Your task to perform on an android device: open app "Expedia: Hotels, Flights & Car" (install if not already installed) Image 0: 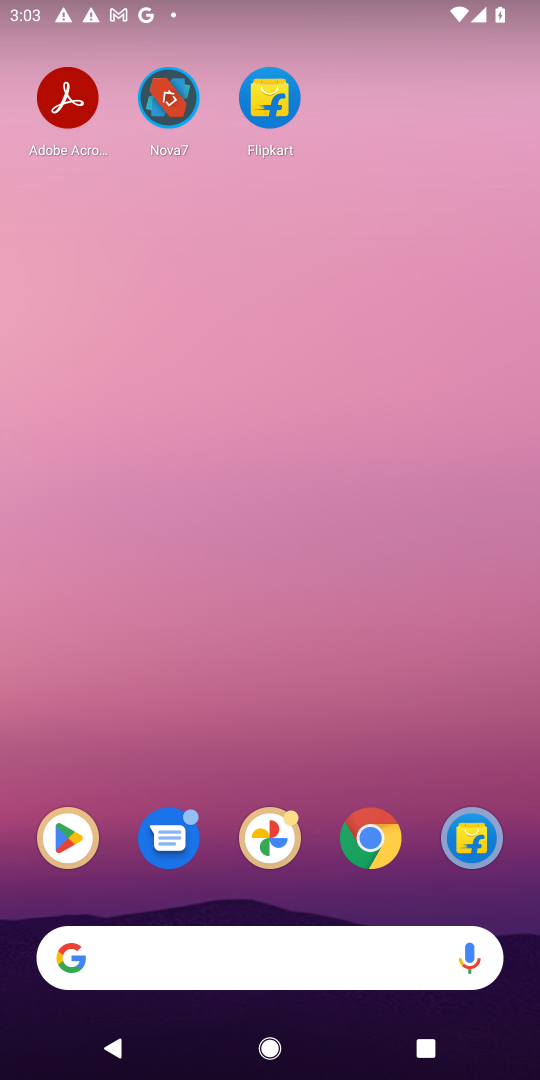
Step 0: click (39, 847)
Your task to perform on an android device: open app "Expedia: Hotels, Flights & Car" (install if not already installed) Image 1: 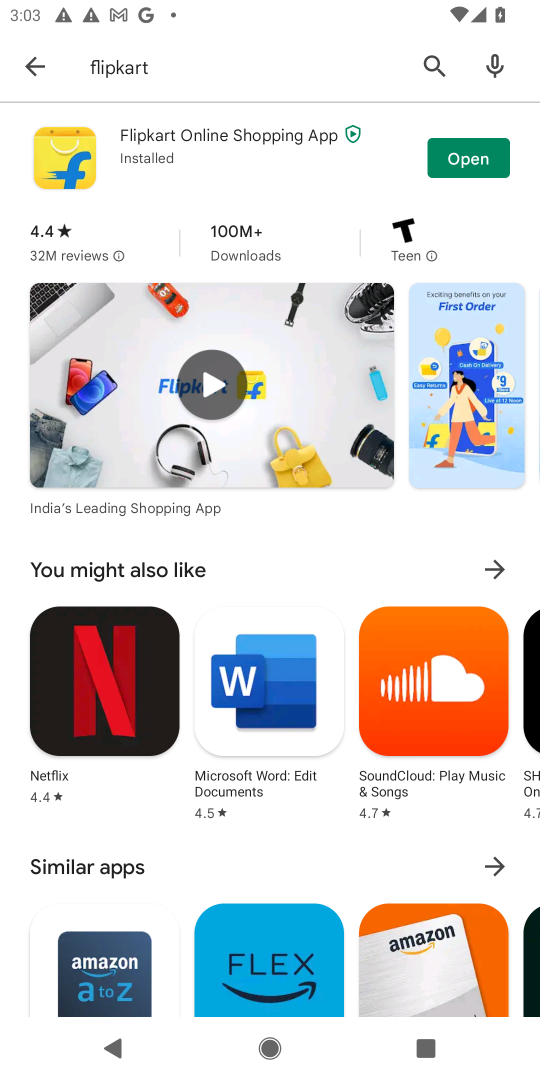
Step 1: click (436, 64)
Your task to perform on an android device: open app "Expedia: Hotels, Flights & Car" (install if not already installed) Image 2: 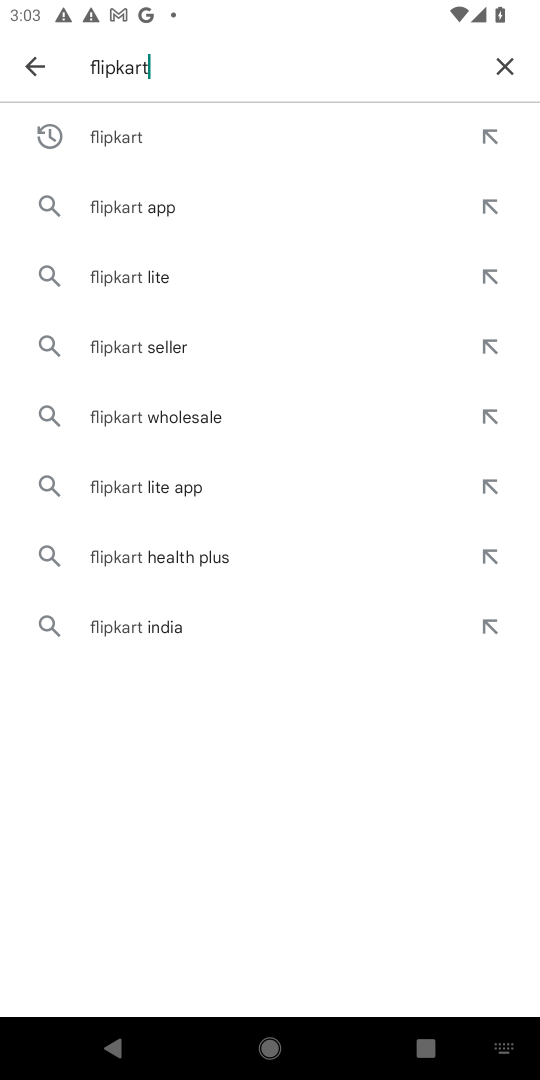
Step 2: click (497, 77)
Your task to perform on an android device: open app "Expedia: Hotels, Flights & Car" (install if not already installed) Image 3: 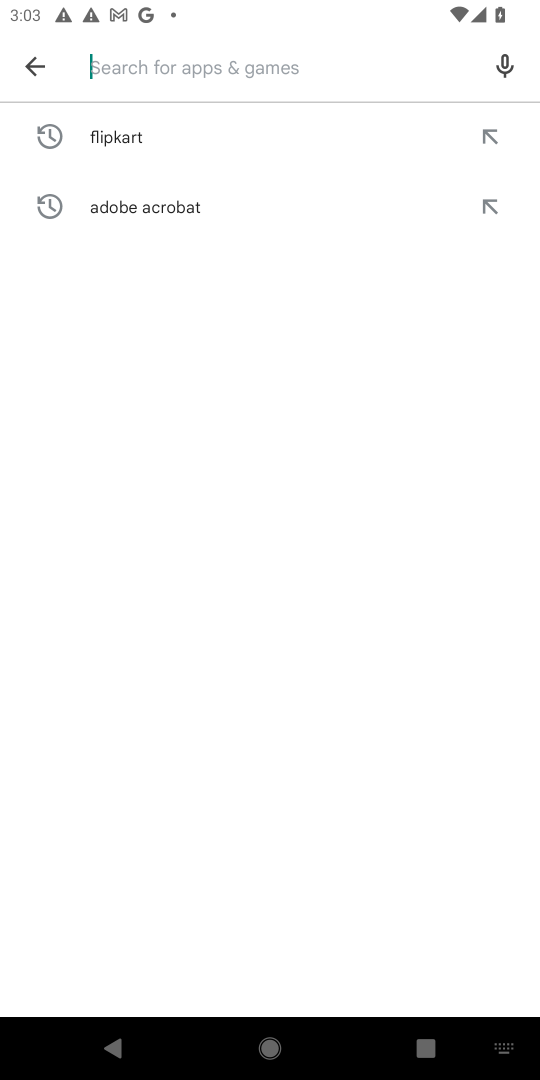
Step 3: type "expedia"
Your task to perform on an android device: open app "Expedia: Hotels, Flights & Car" (install if not already installed) Image 4: 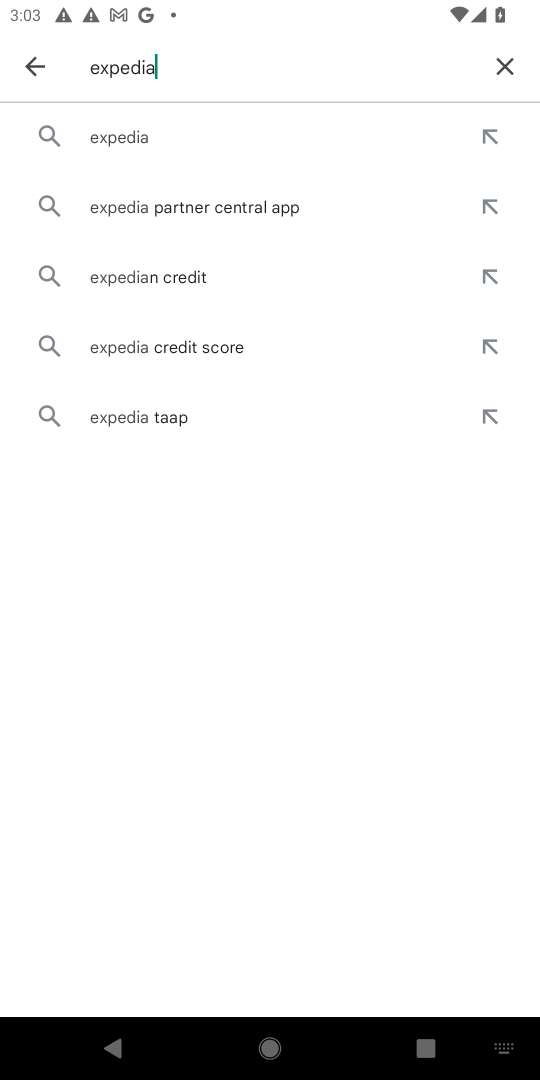
Step 4: click (185, 129)
Your task to perform on an android device: open app "Expedia: Hotels, Flights & Car" (install if not already installed) Image 5: 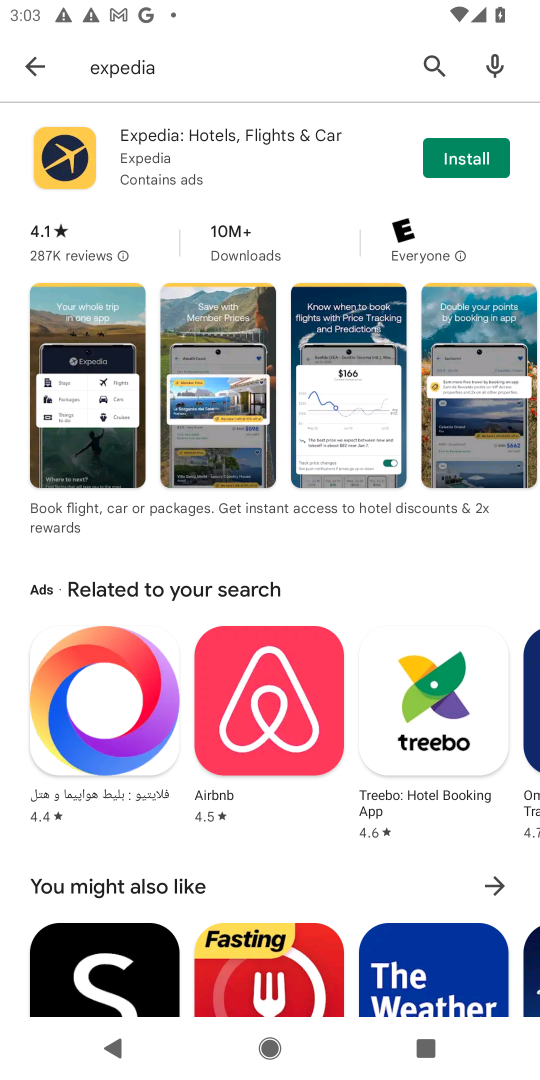
Step 5: click (459, 161)
Your task to perform on an android device: open app "Expedia: Hotels, Flights & Car" (install if not already installed) Image 6: 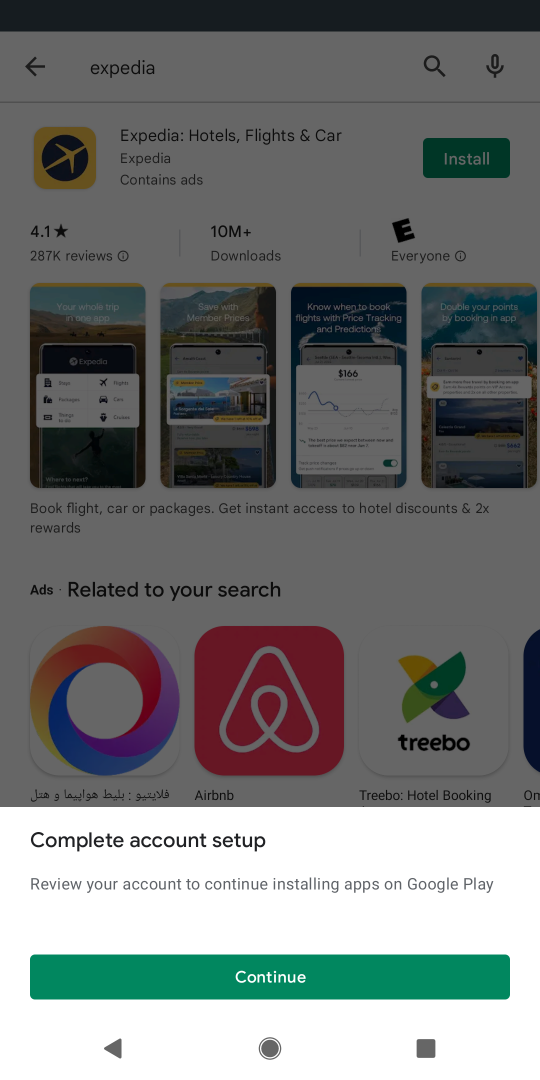
Step 6: click (302, 983)
Your task to perform on an android device: open app "Expedia: Hotels, Flights & Car" (install if not already installed) Image 7: 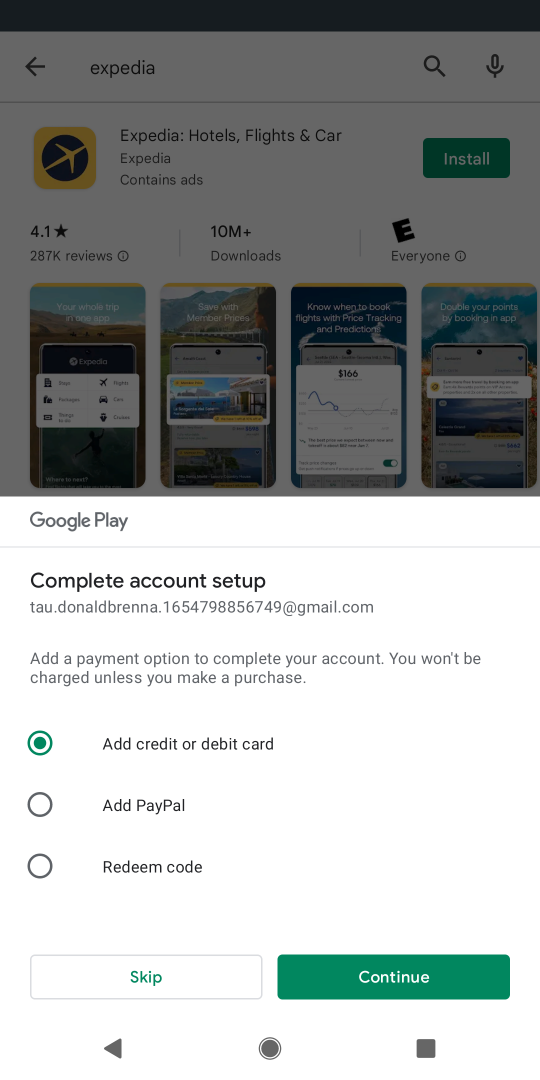
Step 7: click (135, 969)
Your task to perform on an android device: open app "Expedia: Hotels, Flights & Car" (install if not already installed) Image 8: 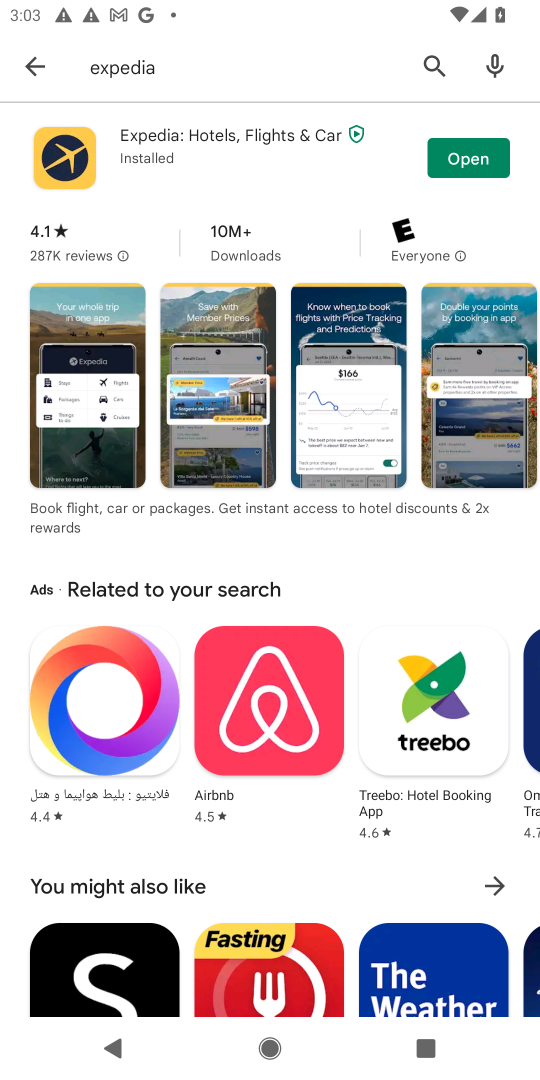
Step 8: click (472, 160)
Your task to perform on an android device: open app "Expedia: Hotels, Flights & Car" (install if not already installed) Image 9: 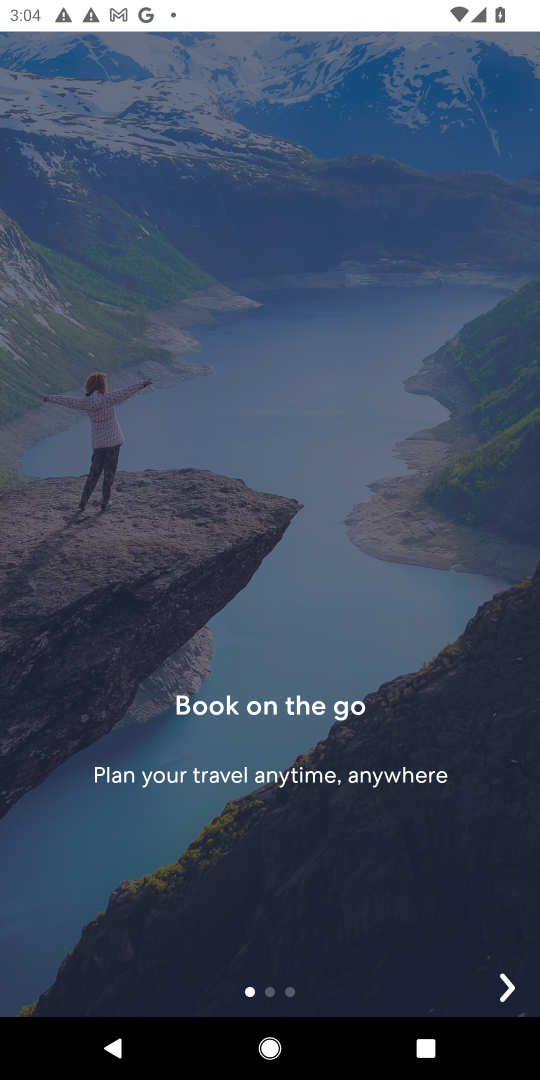
Step 9: task complete